Your task to perform on an android device: Open accessibility settings Image 0: 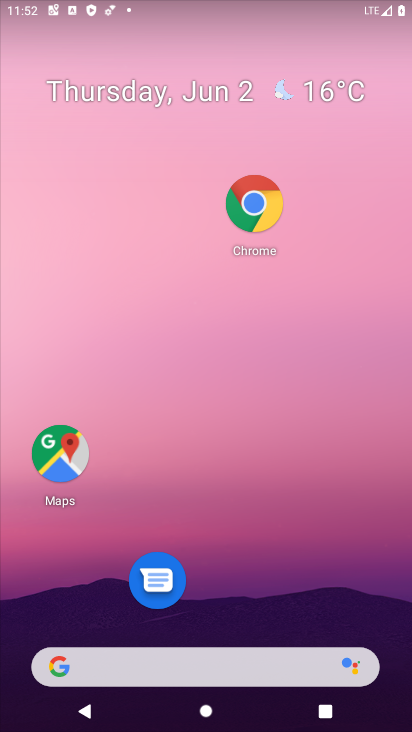
Step 0: click (237, 484)
Your task to perform on an android device: Open accessibility settings Image 1: 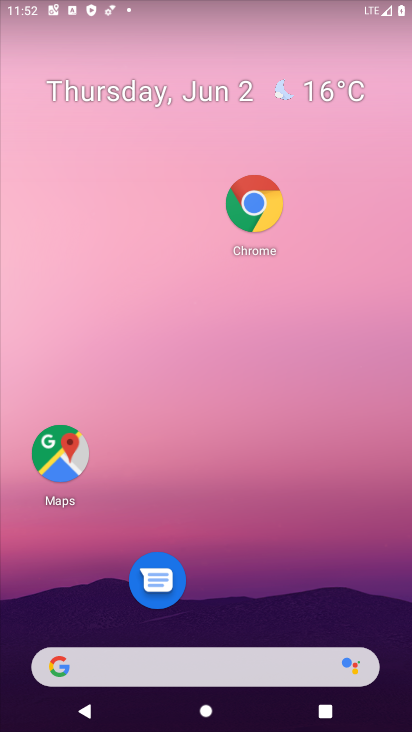
Step 1: drag from (194, 528) to (206, 283)
Your task to perform on an android device: Open accessibility settings Image 2: 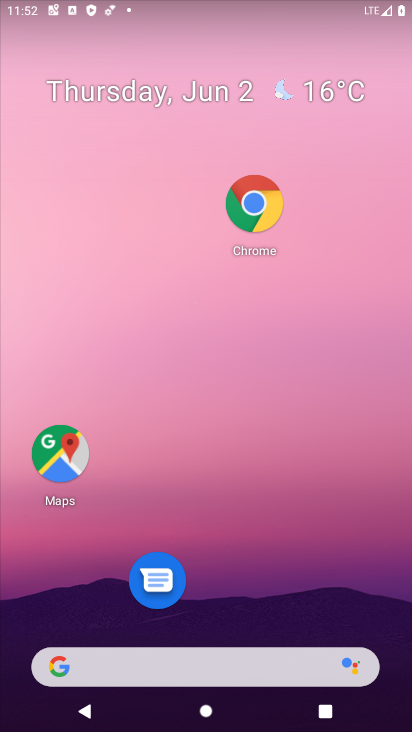
Step 2: drag from (185, 590) to (223, 332)
Your task to perform on an android device: Open accessibility settings Image 3: 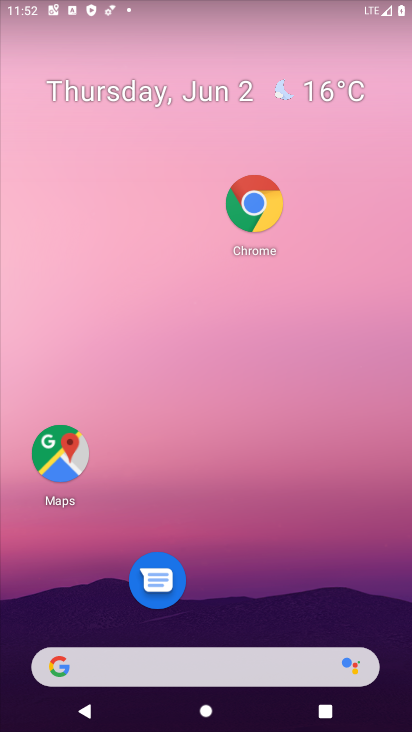
Step 3: drag from (218, 654) to (265, 205)
Your task to perform on an android device: Open accessibility settings Image 4: 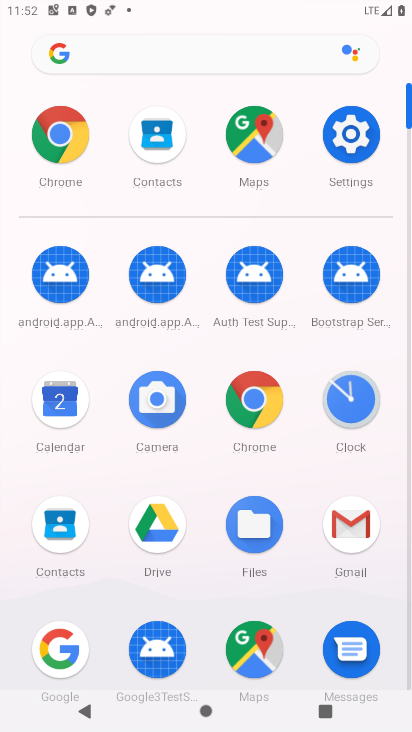
Step 4: click (346, 151)
Your task to perform on an android device: Open accessibility settings Image 5: 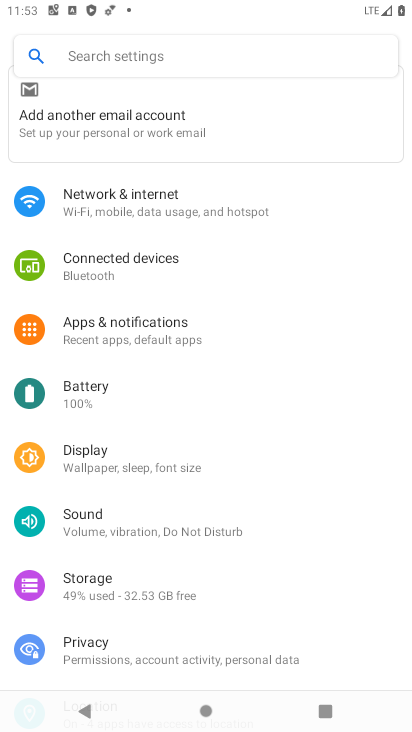
Step 5: drag from (186, 420) to (197, 351)
Your task to perform on an android device: Open accessibility settings Image 6: 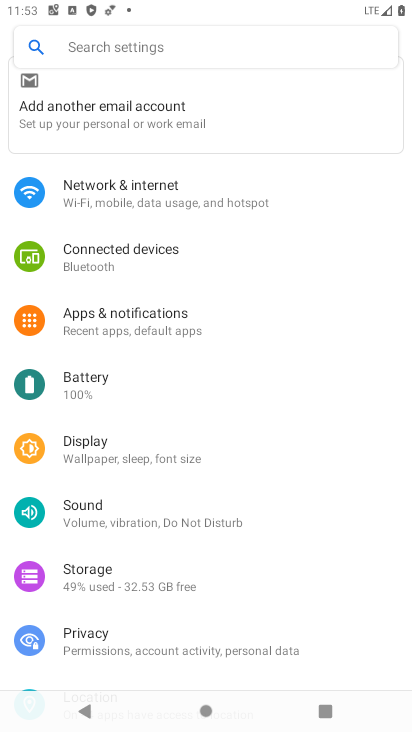
Step 6: drag from (159, 564) to (188, 179)
Your task to perform on an android device: Open accessibility settings Image 7: 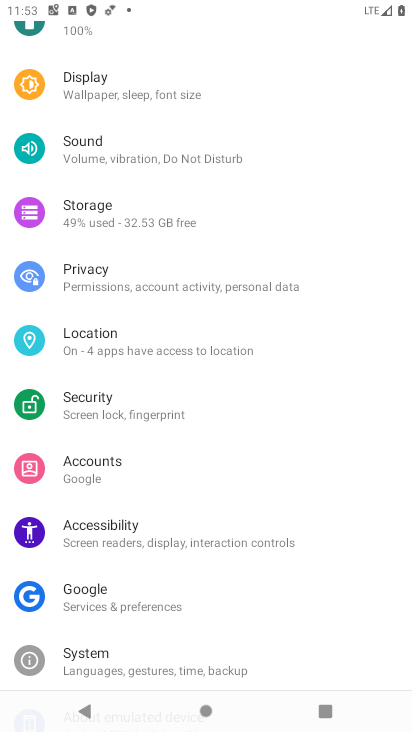
Step 7: click (152, 537)
Your task to perform on an android device: Open accessibility settings Image 8: 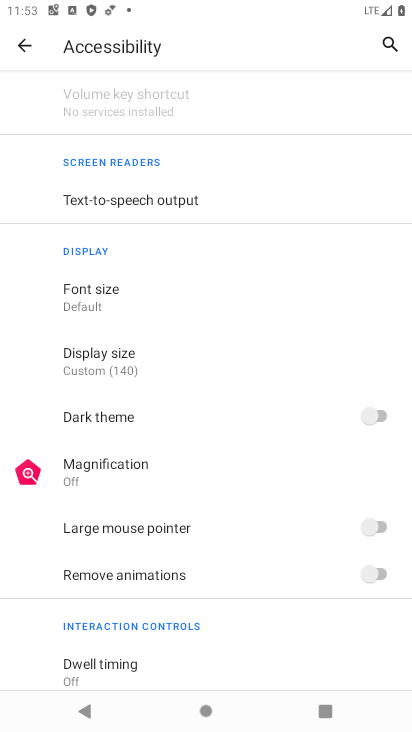
Step 8: task complete